Your task to perform on an android device: Open Google Image 0: 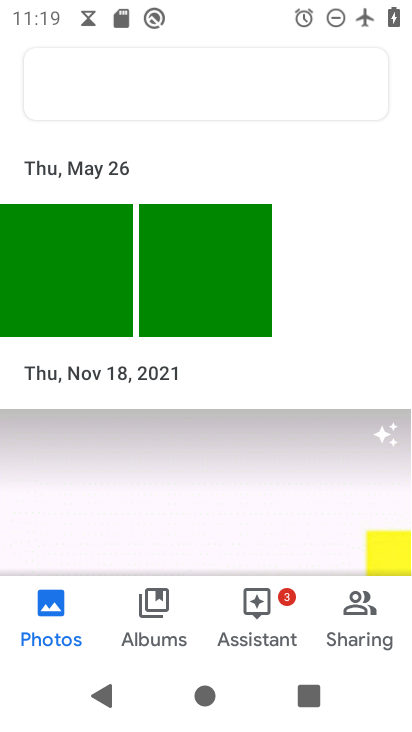
Step 0: press home button
Your task to perform on an android device: Open Google Image 1: 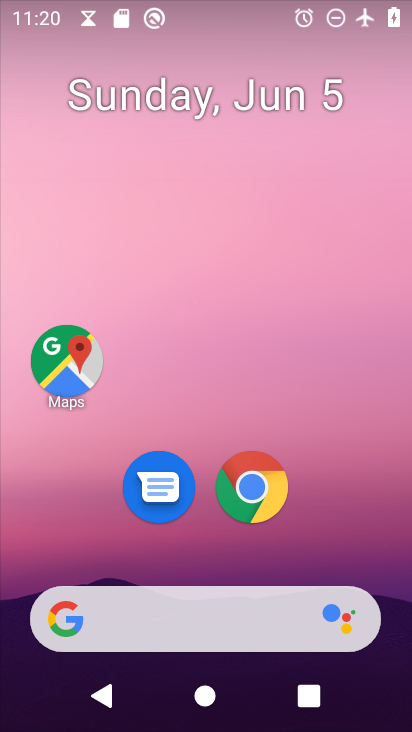
Step 1: drag from (269, 518) to (263, 216)
Your task to perform on an android device: Open Google Image 2: 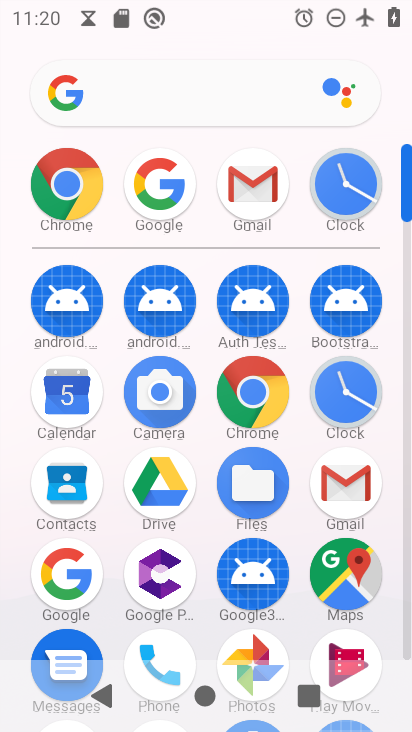
Step 2: click (158, 178)
Your task to perform on an android device: Open Google Image 3: 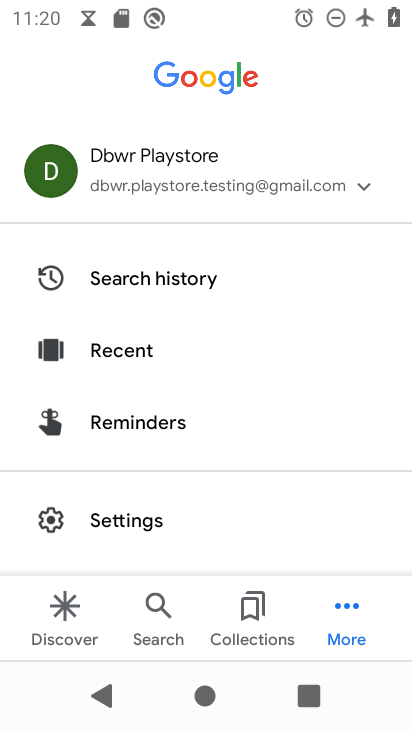
Step 3: task complete